Your task to perform on an android device: uninstall "Facebook" Image 0: 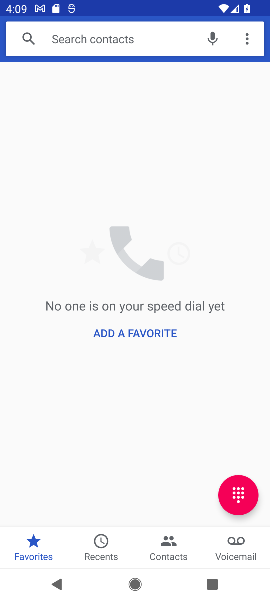
Step 0: press home button
Your task to perform on an android device: uninstall "Facebook" Image 1: 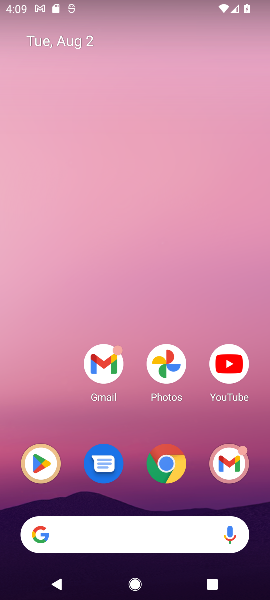
Step 1: click (41, 462)
Your task to perform on an android device: uninstall "Facebook" Image 2: 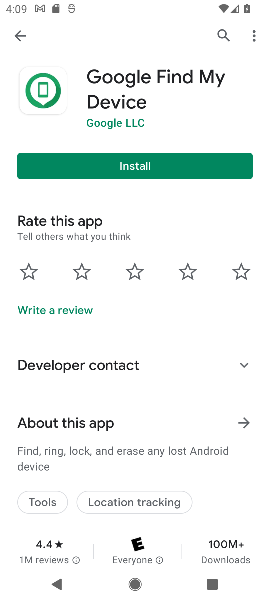
Step 2: click (222, 29)
Your task to perform on an android device: uninstall "Facebook" Image 3: 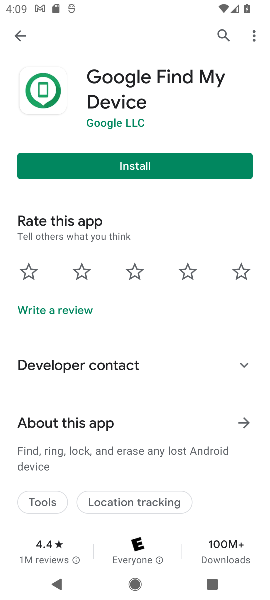
Step 3: click (219, 31)
Your task to perform on an android device: uninstall "Facebook" Image 4: 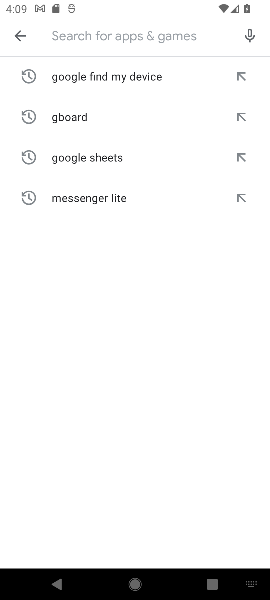
Step 4: type "Facebook"
Your task to perform on an android device: uninstall "Facebook" Image 5: 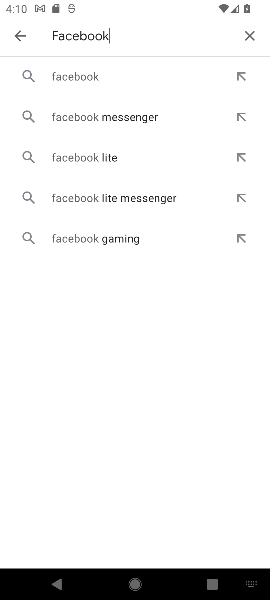
Step 5: click (75, 74)
Your task to perform on an android device: uninstall "Facebook" Image 6: 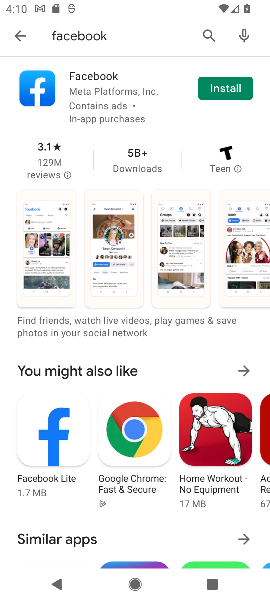
Step 6: task complete